Your task to perform on an android device: Go to notification settings Image 0: 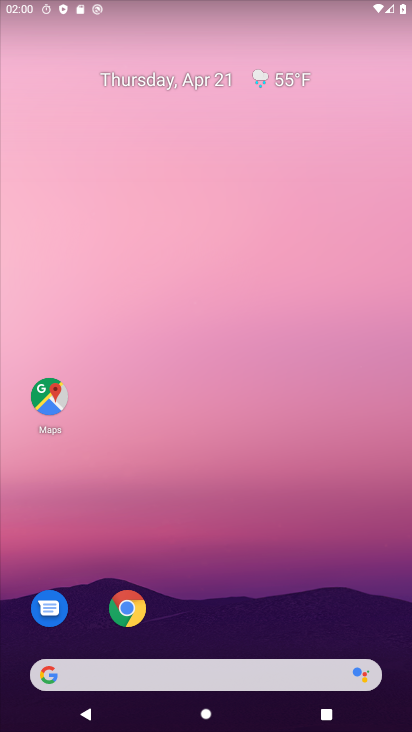
Step 0: drag from (182, 505) to (130, 108)
Your task to perform on an android device: Go to notification settings Image 1: 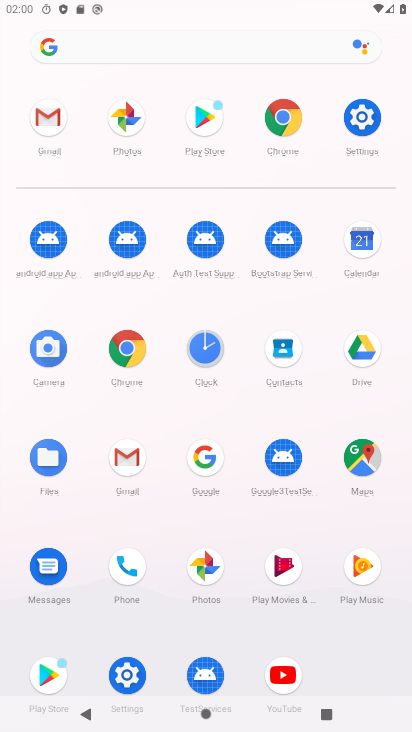
Step 1: click (366, 135)
Your task to perform on an android device: Go to notification settings Image 2: 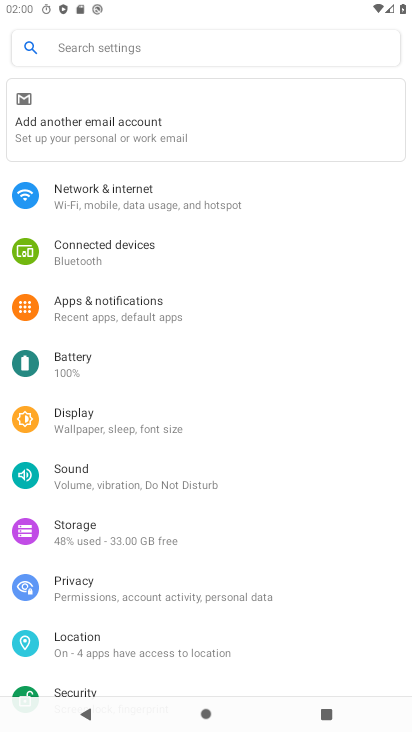
Step 2: click (112, 312)
Your task to perform on an android device: Go to notification settings Image 3: 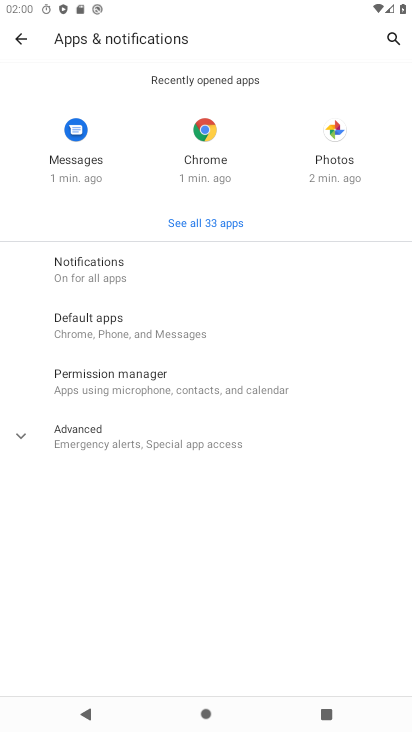
Step 3: click (64, 275)
Your task to perform on an android device: Go to notification settings Image 4: 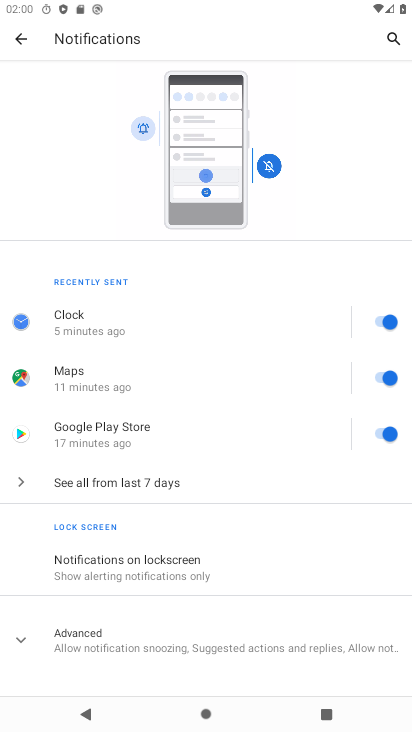
Step 4: drag from (186, 596) to (168, 281)
Your task to perform on an android device: Go to notification settings Image 5: 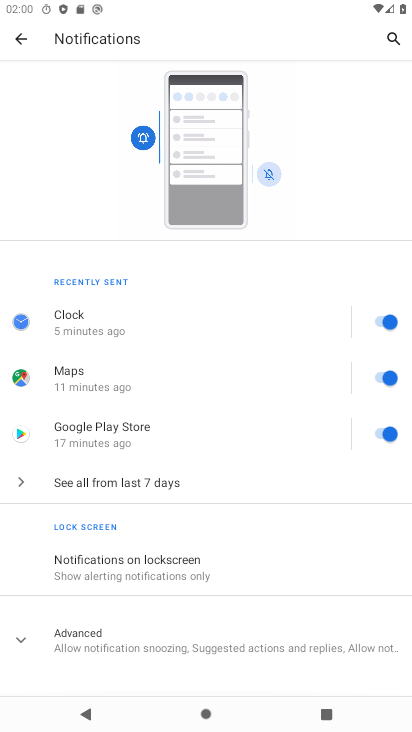
Step 5: click (119, 632)
Your task to perform on an android device: Go to notification settings Image 6: 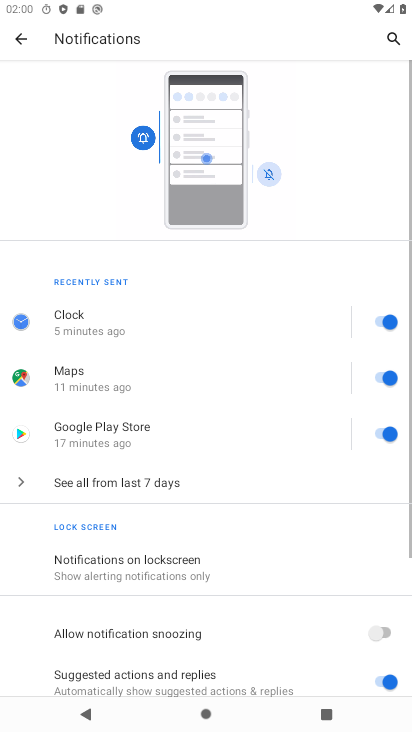
Step 6: task complete